Your task to perform on an android device: turn off data saver in the chrome app Image 0: 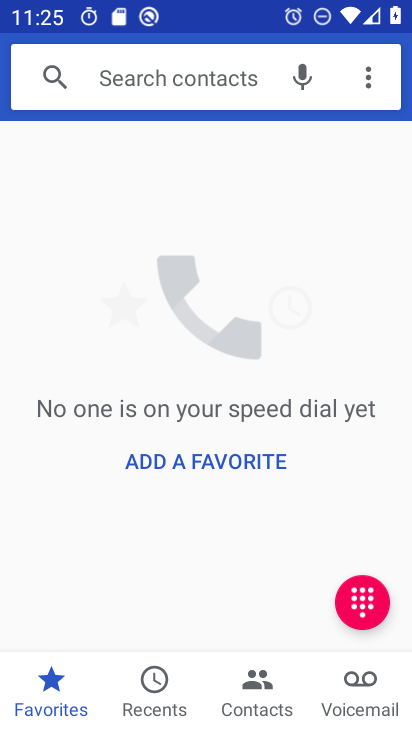
Step 0: press home button
Your task to perform on an android device: turn off data saver in the chrome app Image 1: 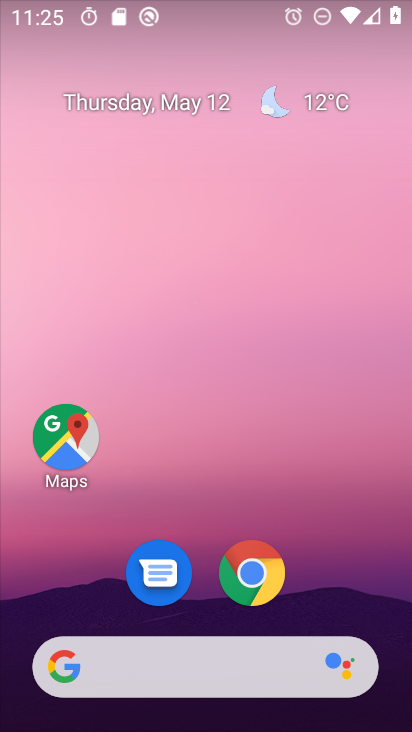
Step 1: click (245, 570)
Your task to perform on an android device: turn off data saver in the chrome app Image 2: 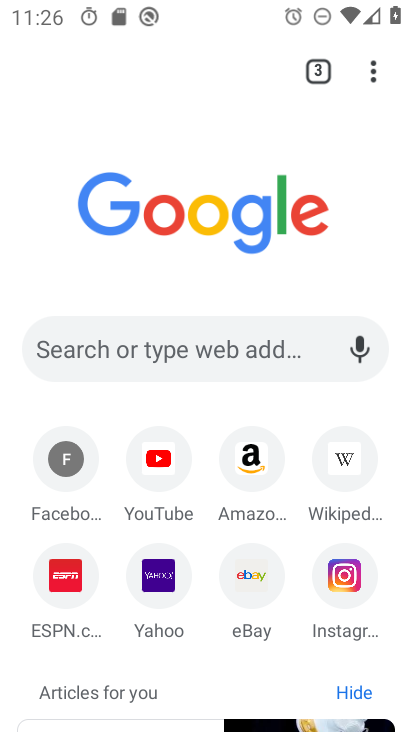
Step 2: click (372, 71)
Your task to perform on an android device: turn off data saver in the chrome app Image 3: 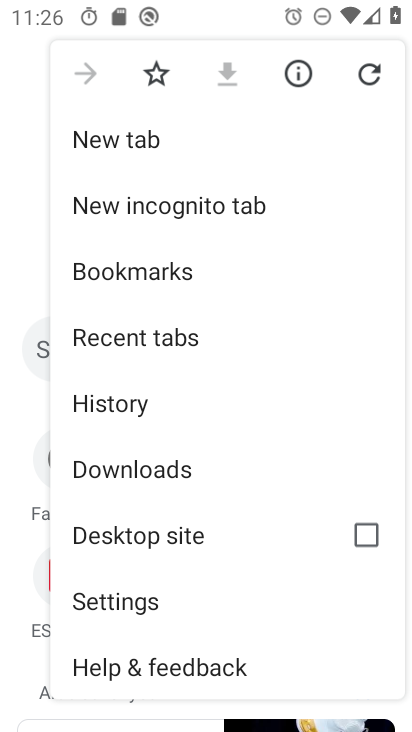
Step 3: click (126, 600)
Your task to perform on an android device: turn off data saver in the chrome app Image 4: 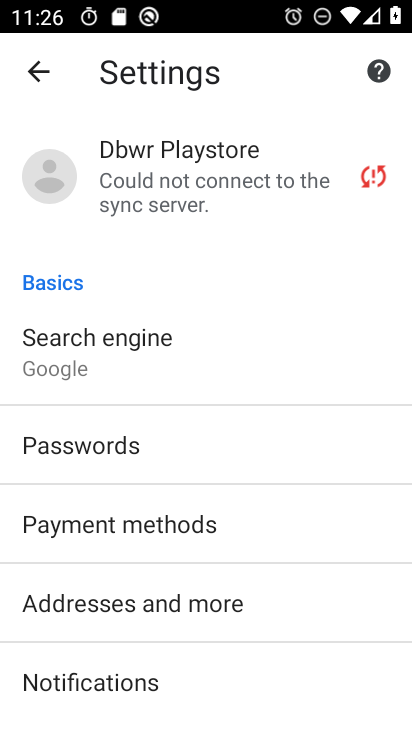
Step 4: drag from (265, 689) to (284, 384)
Your task to perform on an android device: turn off data saver in the chrome app Image 5: 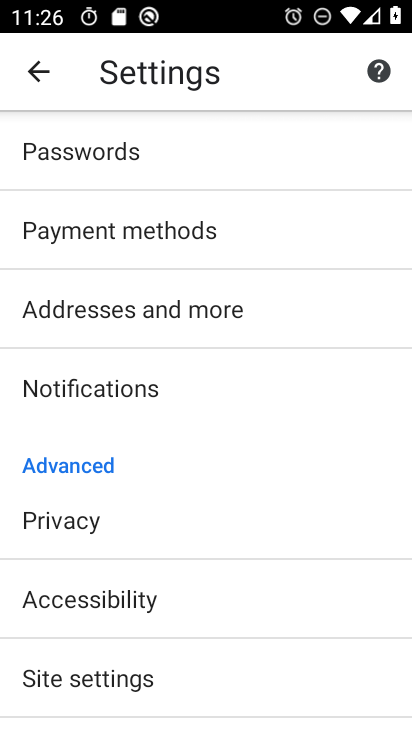
Step 5: drag from (253, 646) to (270, 412)
Your task to perform on an android device: turn off data saver in the chrome app Image 6: 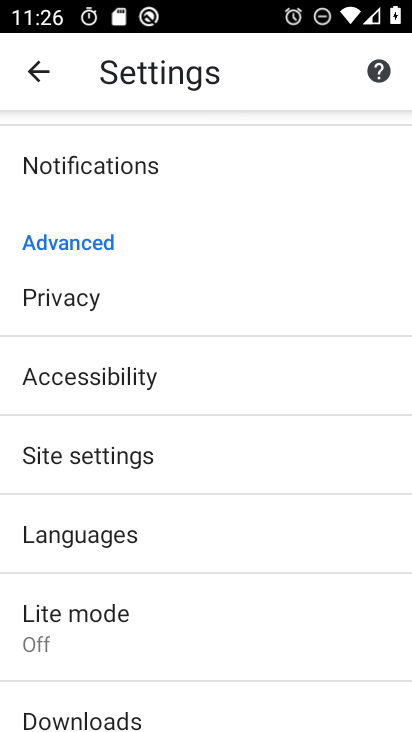
Step 6: click (61, 625)
Your task to perform on an android device: turn off data saver in the chrome app Image 7: 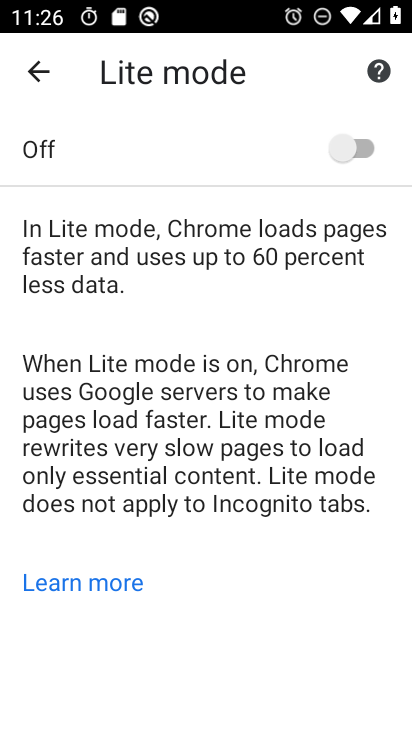
Step 7: task complete